Your task to perform on an android device: Is it going to rain tomorrow? Image 0: 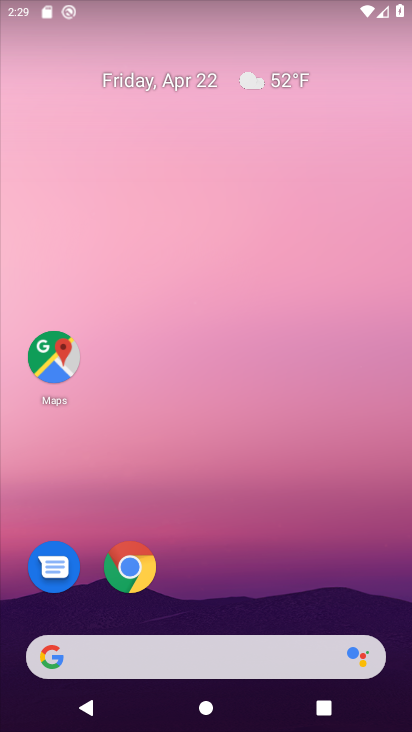
Step 0: click (278, 84)
Your task to perform on an android device: Is it going to rain tomorrow? Image 1: 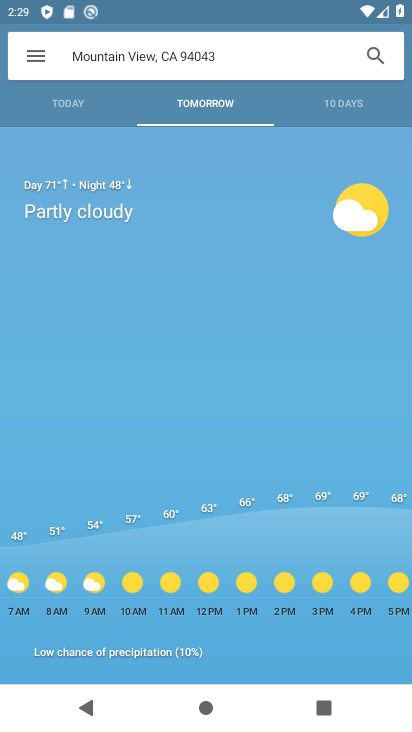
Step 1: task complete